Your task to perform on an android device: turn off translation in the chrome app Image 0: 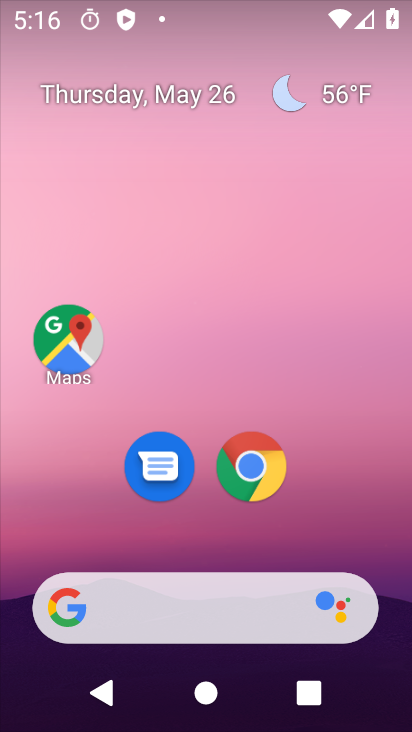
Step 0: click (258, 467)
Your task to perform on an android device: turn off translation in the chrome app Image 1: 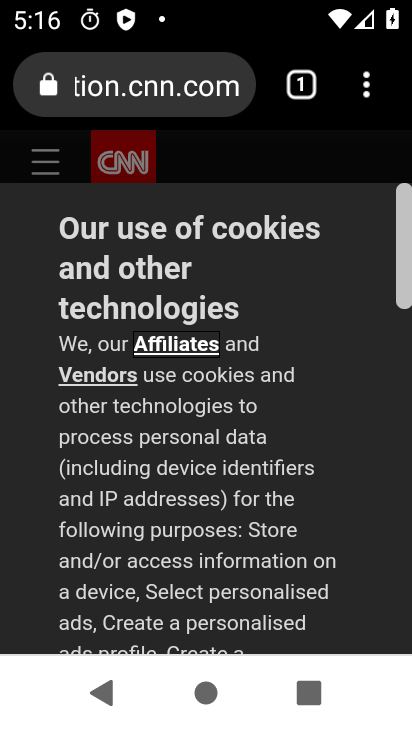
Step 1: drag from (367, 76) to (104, 518)
Your task to perform on an android device: turn off translation in the chrome app Image 2: 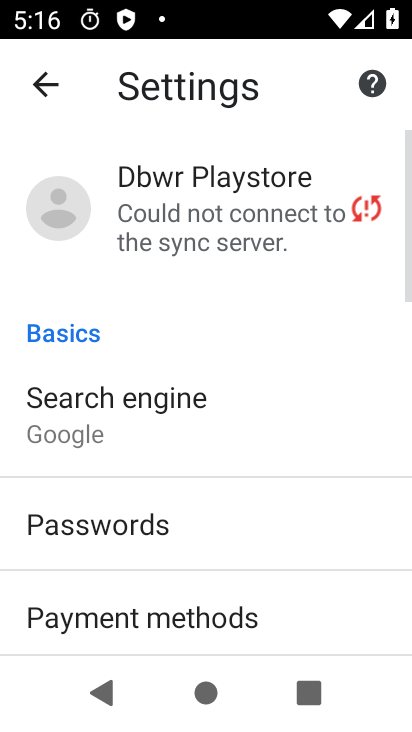
Step 2: drag from (306, 627) to (337, 300)
Your task to perform on an android device: turn off translation in the chrome app Image 3: 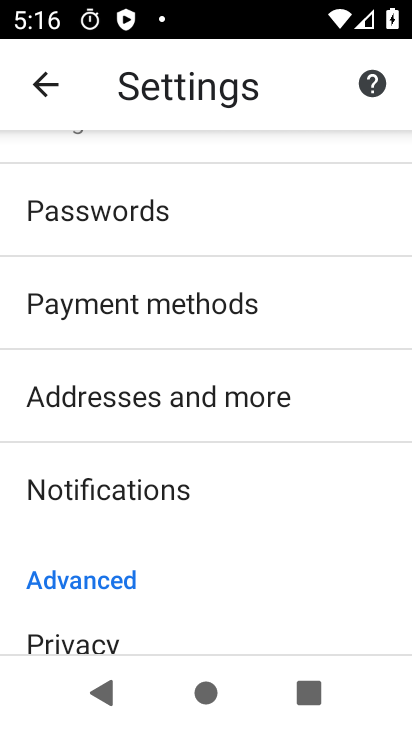
Step 3: drag from (286, 578) to (336, 217)
Your task to perform on an android device: turn off translation in the chrome app Image 4: 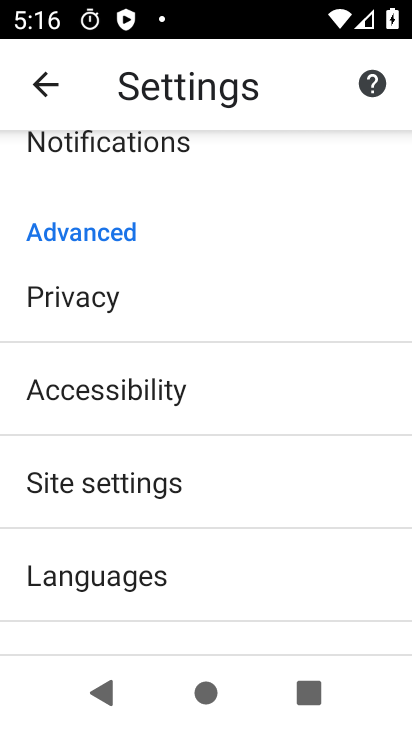
Step 4: click (159, 578)
Your task to perform on an android device: turn off translation in the chrome app Image 5: 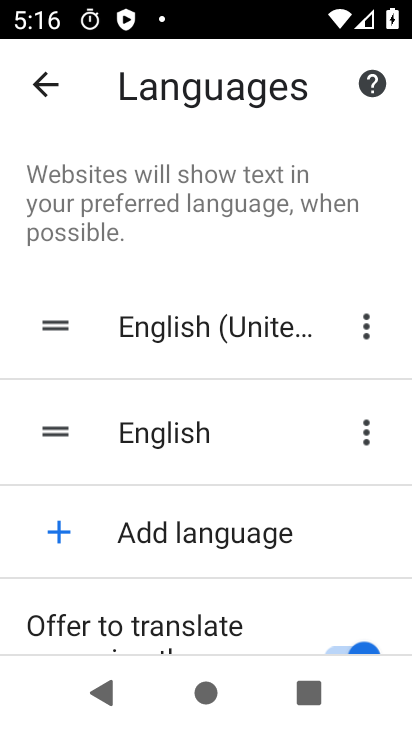
Step 5: drag from (319, 596) to (329, 237)
Your task to perform on an android device: turn off translation in the chrome app Image 6: 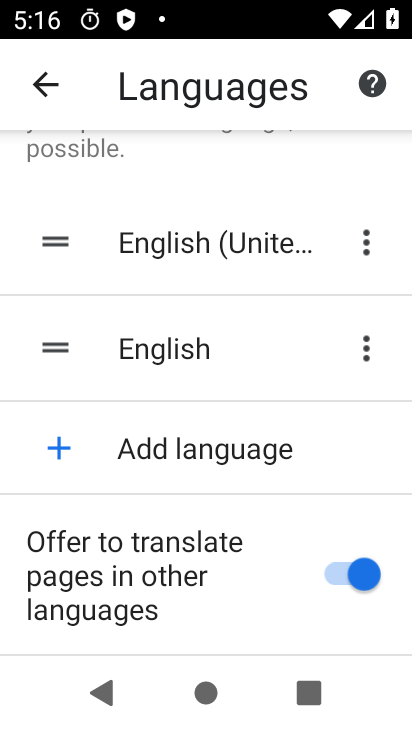
Step 6: click (340, 563)
Your task to perform on an android device: turn off translation in the chrome app Image 7: 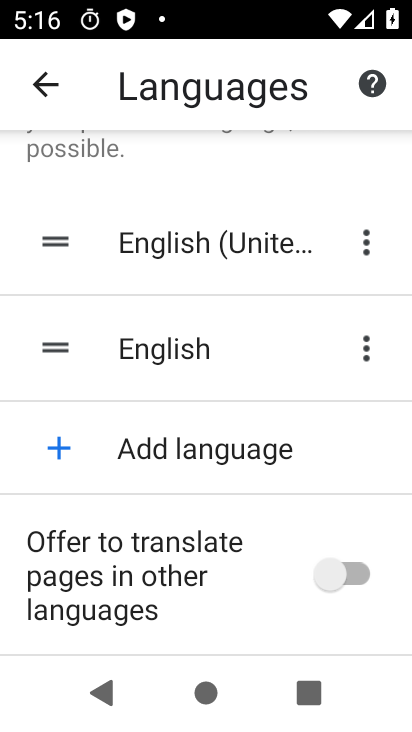
Step 7: task complete